Your task to perform on an android device: Open Youtube and go to the subscriptions tab Image 0: 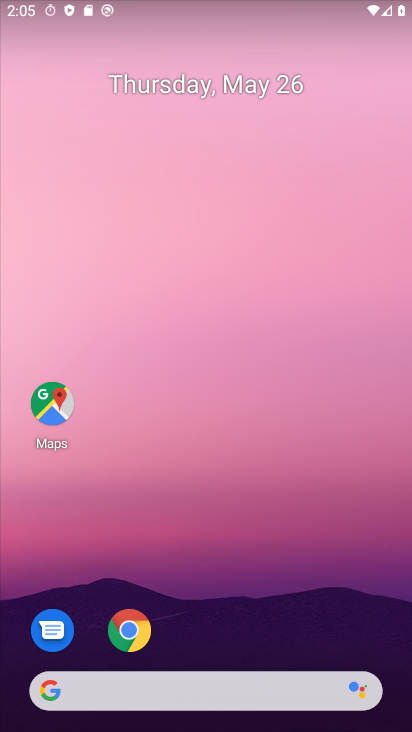
Step 0: drag from (314, 565) to (300, 185)
Your task to perform on an android device: Open Youtube and go to the subscriptions tab Image 1: 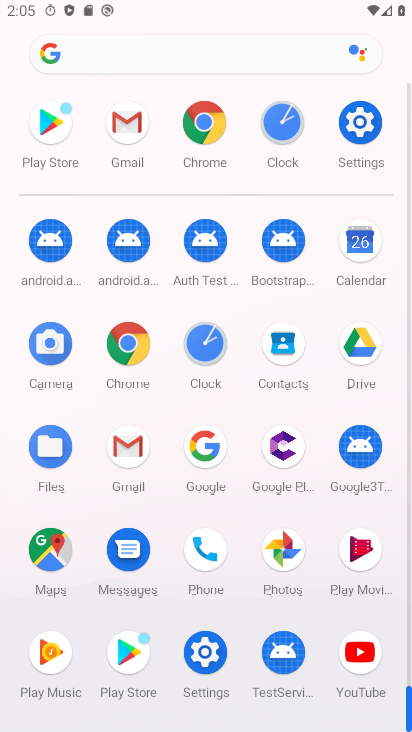
Step 1: click (346, 659)
Your task to perform on an android device: Open Youtube and go to the subscriptions tab Image 2: 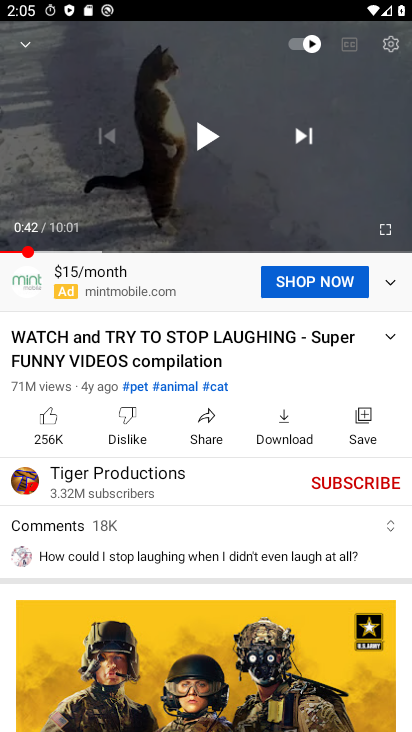
Step 2: click (18, 37)
Your task to perform on an android device: Open Youtube and go to the subscriptions tab Image 3: 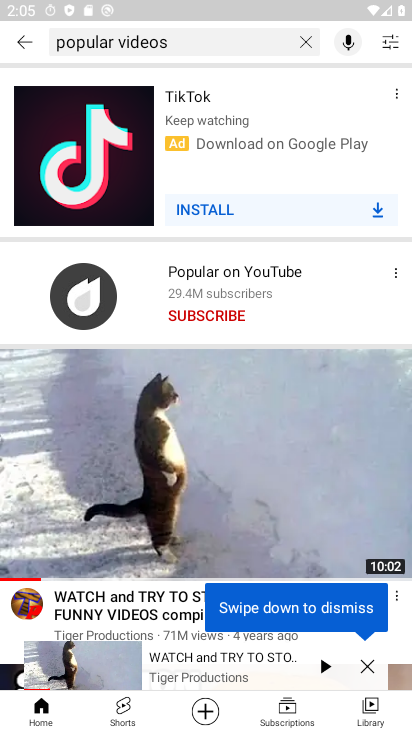
Step 3: click (273, 709)
Your task to perform on an android device: Open Youtube and go to the subscriptions tab Image 4: 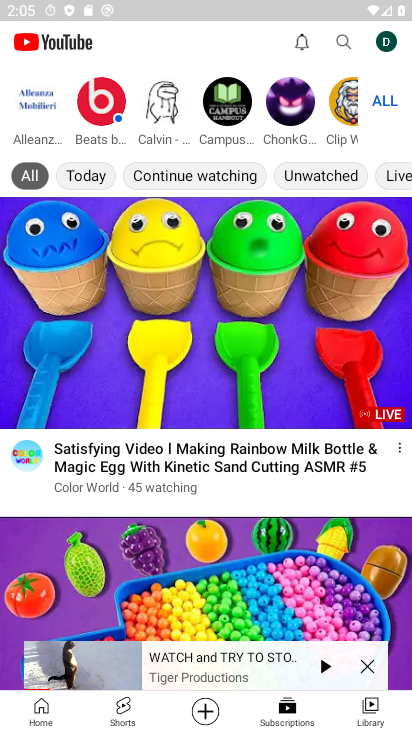
Step 4: task complete